Your task to perform on an android device: check android version Image 0: 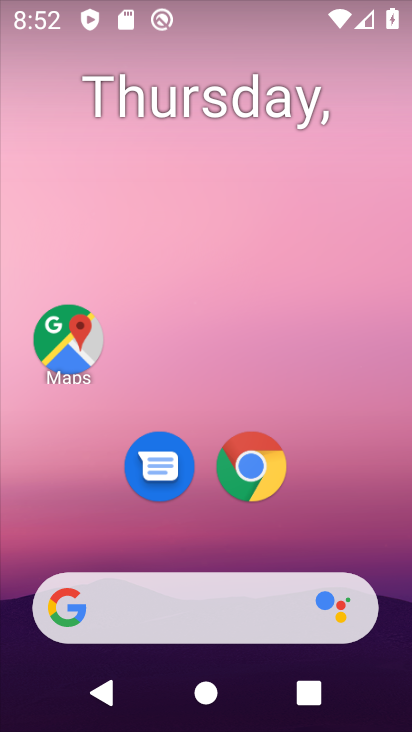
Step 0: press home button
Your task to perform on an android device: check android version Image 1: 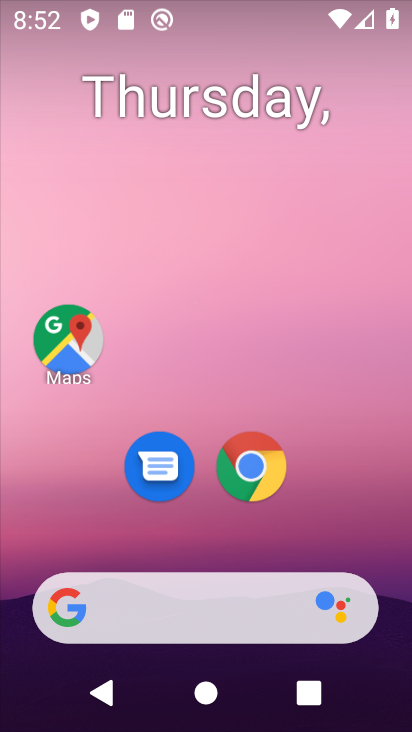
Step 1: drag from (165, 613) to (232, 139)
Your task to perform on an android device: check android version Image 2: 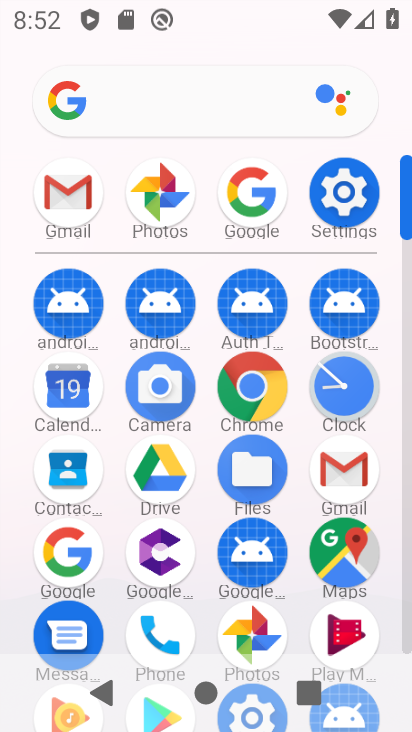
Step 2: click (350, 202)
Your task to perform on an android device: check android version Image 3: 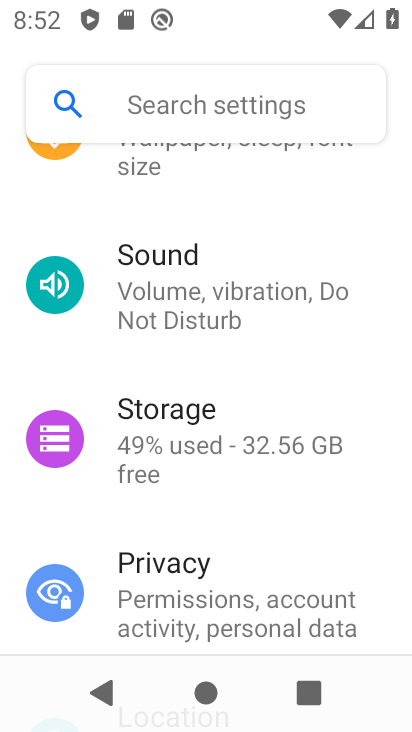
Step 3: drag from (248, 574) to (305, 124)
Your task to perform on an android device: check android version Image 4: 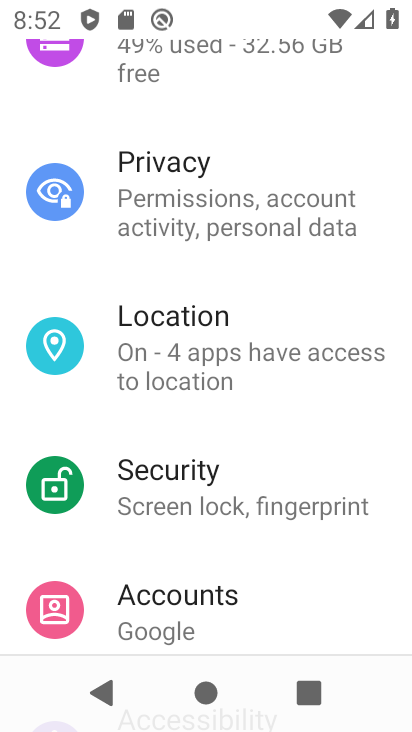
Step 4: drag from (265, 634) to (306, 87)
Your task to perform on an android device: check android version Image 5: 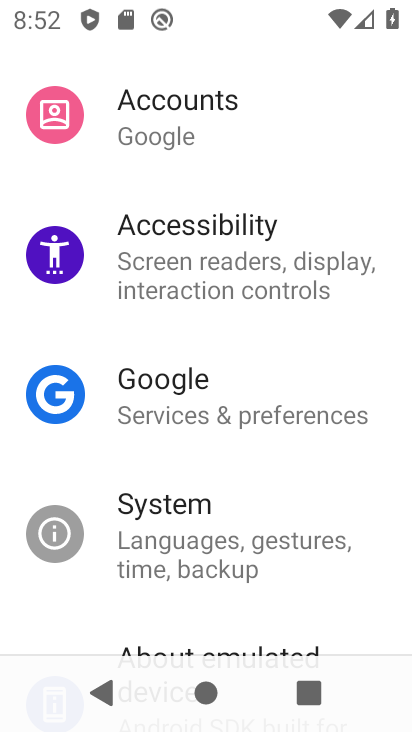
Step 5: drag from (259, 493) to (328, 148)
Your task to perform on an android device: check android version Image 6: 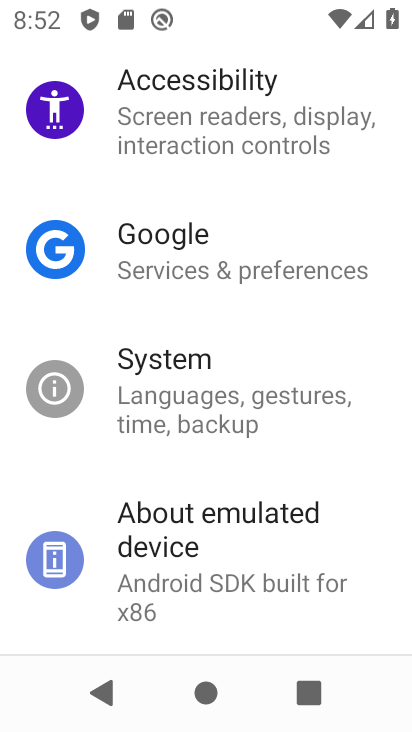
Step 6: click (170, 549)
Your task to perform on an android device: check android version Image 7: 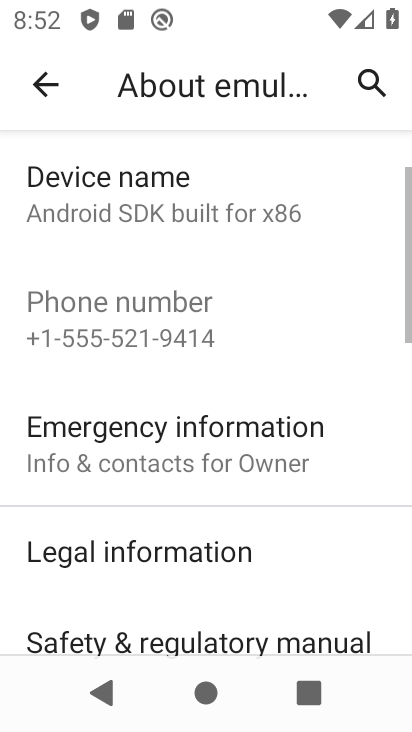
Step 7: drag from (298, 582) to (289, 110)
Your task to perform on an android device: check android version Image 8: 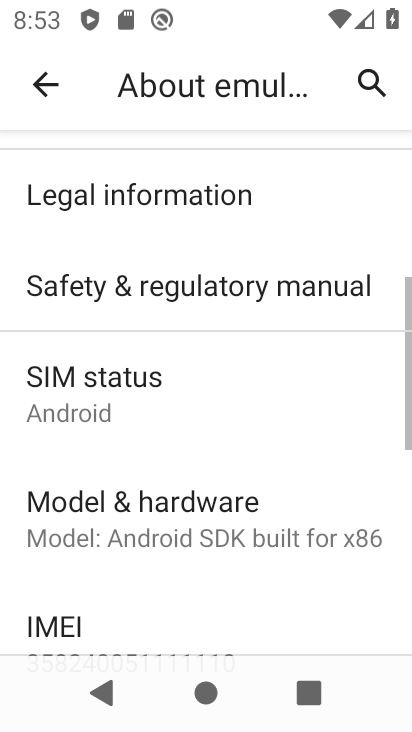
Step 8: drag from (267, 599) to (304, 178)
Your task to perform on an android device: check android version Image 9: 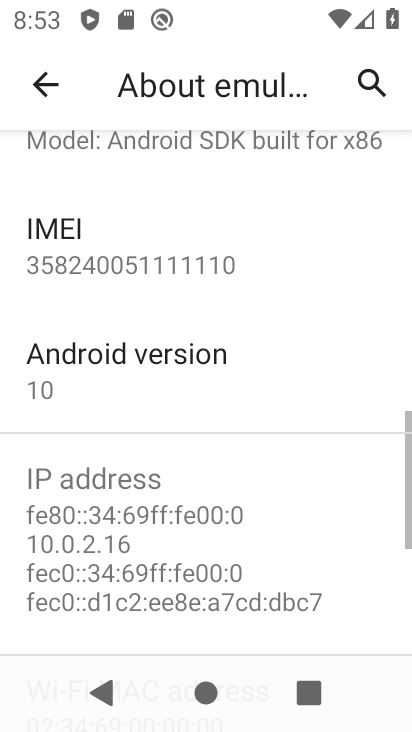
Step 9: click (159, 361)
Your task to perform on an android device: check android version Image 10: 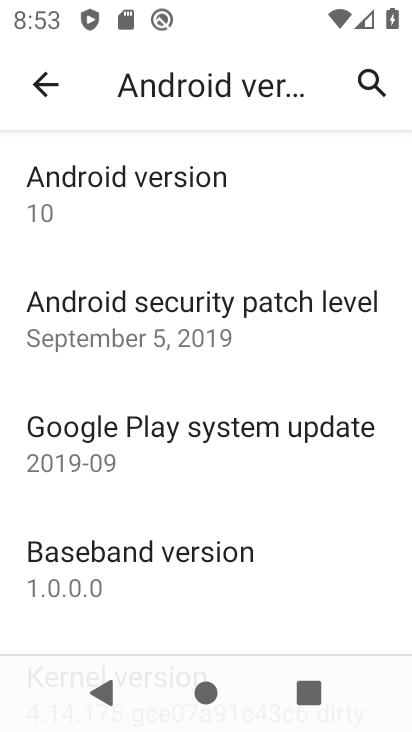
Step 10: task complete